Your task to perform on an android device: open device folders in google photos Image 0: 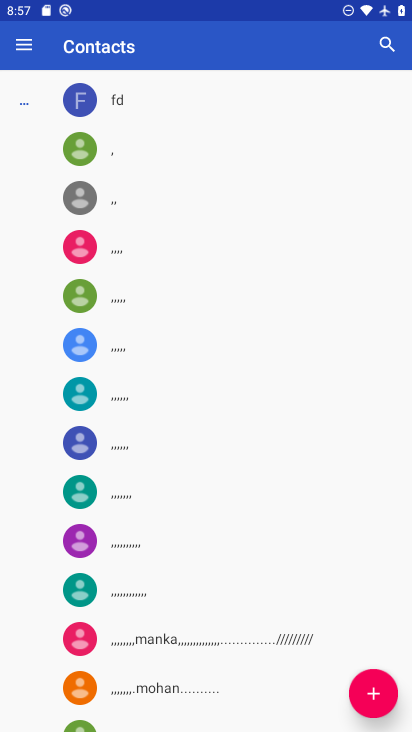
Step 0: press home button
Your task to perform on an android device: open device folders in google photos Image 1: 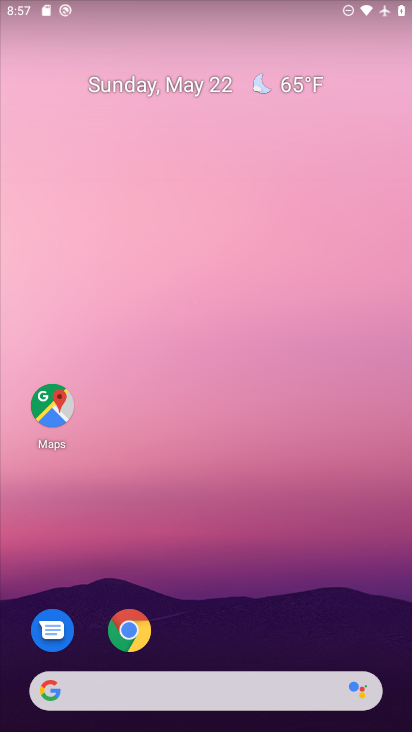
Step 1: drag from (183, 690) to (302, 308)
Your task to perform on an android device: open device folders in google photos Image 2: 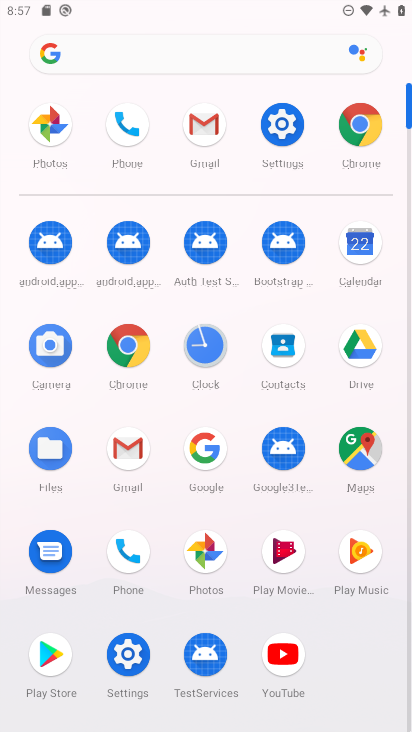
Step 2: click (207, 570)
Your task to perform on an android device: open device folders in google photos Image 3: 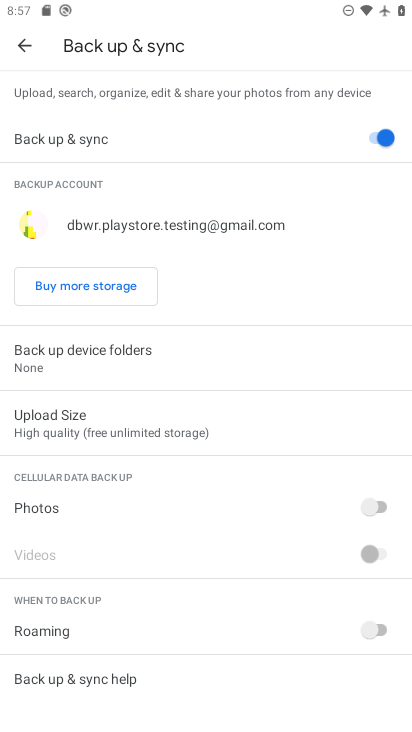
Step 3: click (23, 47)
Your task to perform on an android device: open device folders in google photos Image 4: 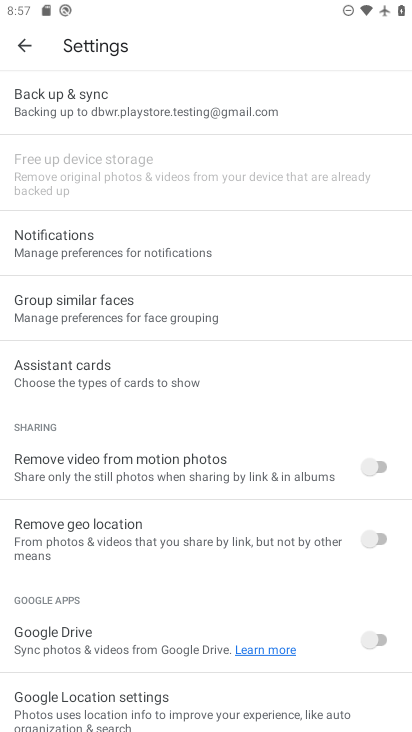
Step 4: click (23, 47)
Your task to perform on an android device: open device folders in google photos Image 5: 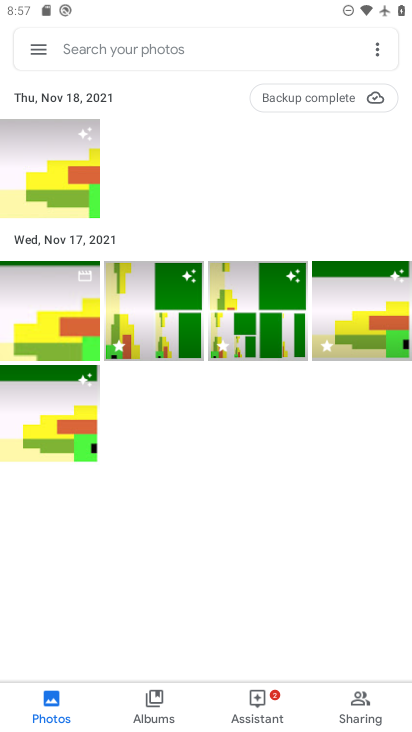
Step 5: click (46, 48)
Your task to perform on an android device: open device folders in google photos Image 6: 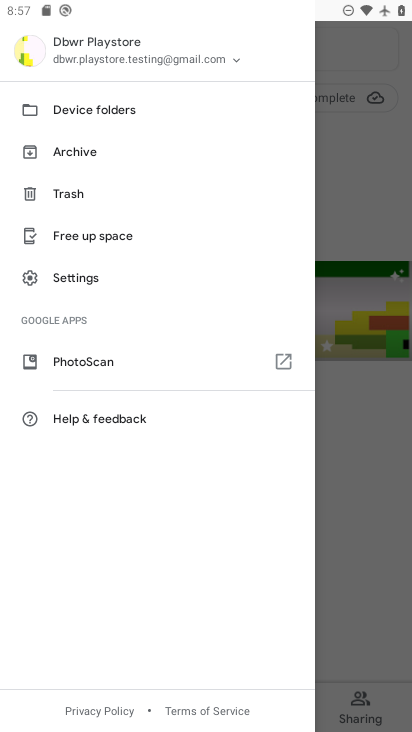
Step 6: click (77, 106)
Your task to perform on an android device: open device folders in google photos Image 7: 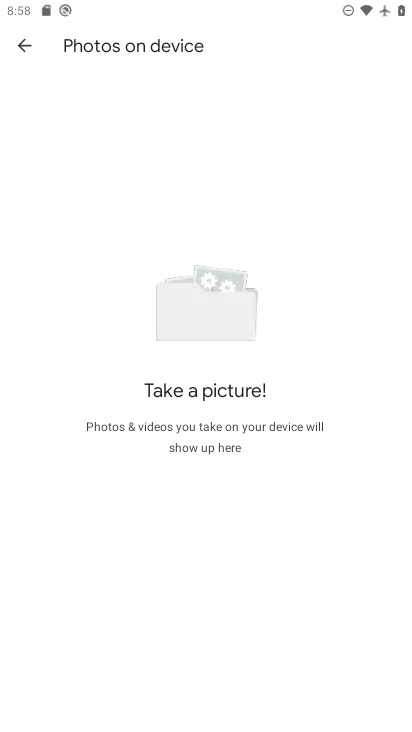
Step 7: task complete